Your task to perform on an android device: turn on translation in the chrome app Image 0: 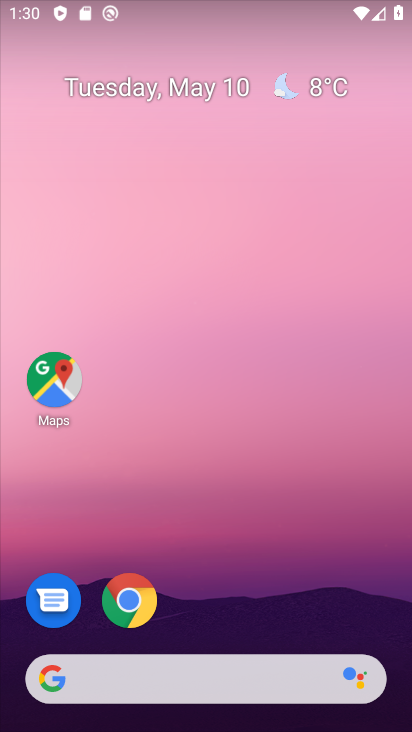
Step 0: click (126, 596)
Your task to perform on an android device: turn on translation in the chrome app Image 1: 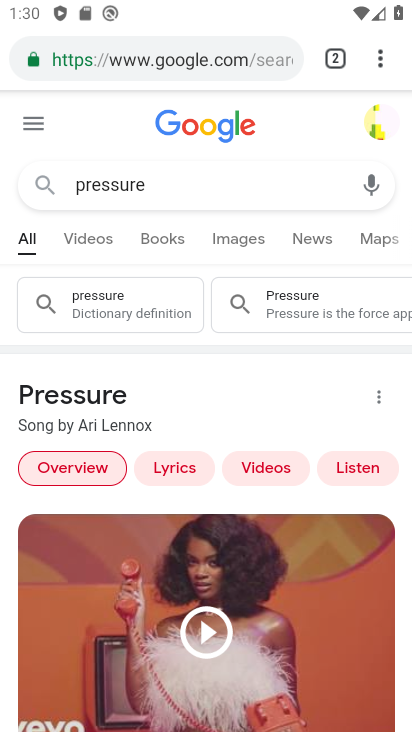
Step 1: click (378, 48)
Your task to perform on an android device: turn on translation in the chrome app Image 2: 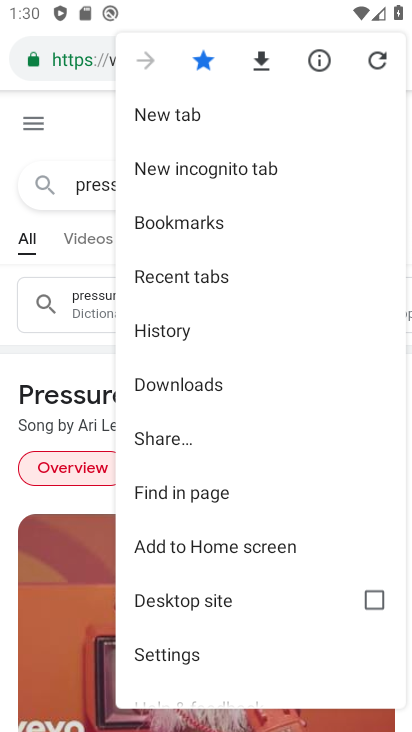
Step 2: click (208, 651)
Your task to perform on an android device: turn on translation in the chrome app Image 3: 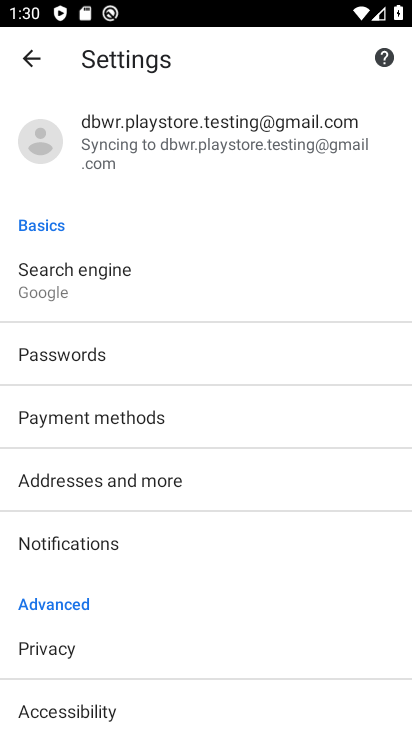
Step 3: drag from (143, 702) to (186, 199)
Your task to perform on an android device: turn on translation in the chrome app Image 4: 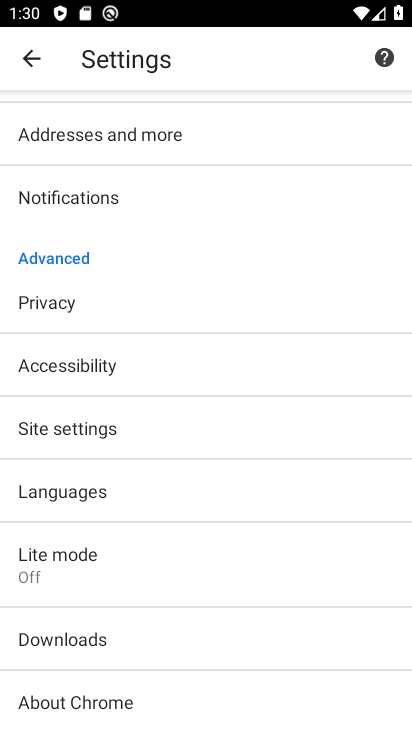
Step 4: click (141, 484)
Your task to perform on an android device: turn on translation in the chrome app Image 5: 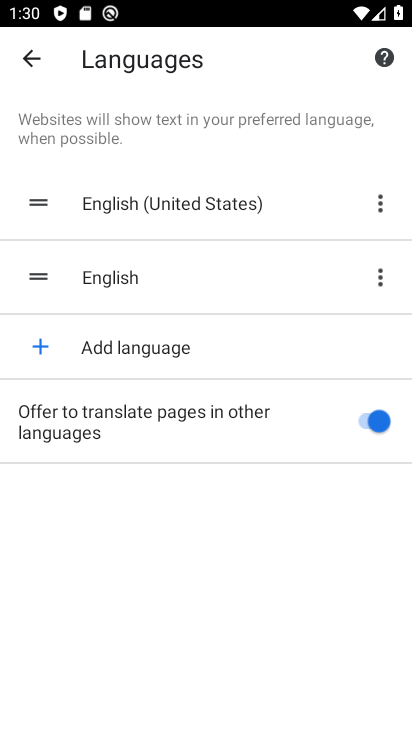
Step 5: task complete